Your task to perform on an android device: turn on showing notifications on the lock screen Image 0: 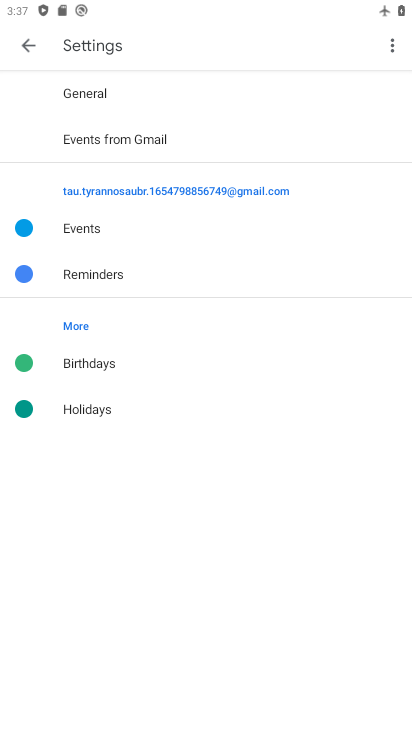
Step 0: press home button
Your task to perform on an android device: turn on showing notifications on the lock screen Image 1: 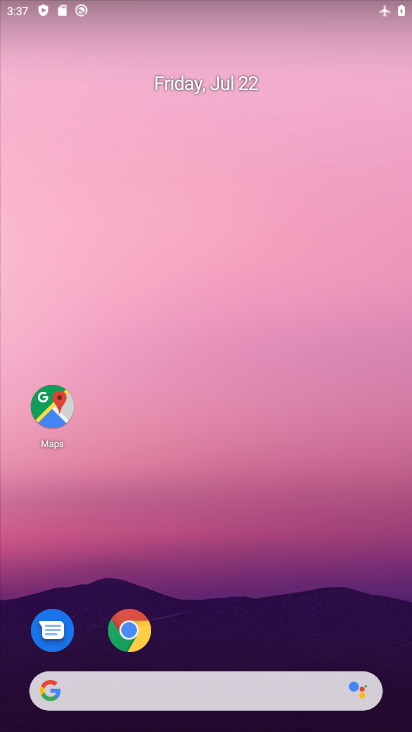
Step 1: click (211, 98)
Your task to perform on an android device: turn on showing notifications on the lock screen Image 2: 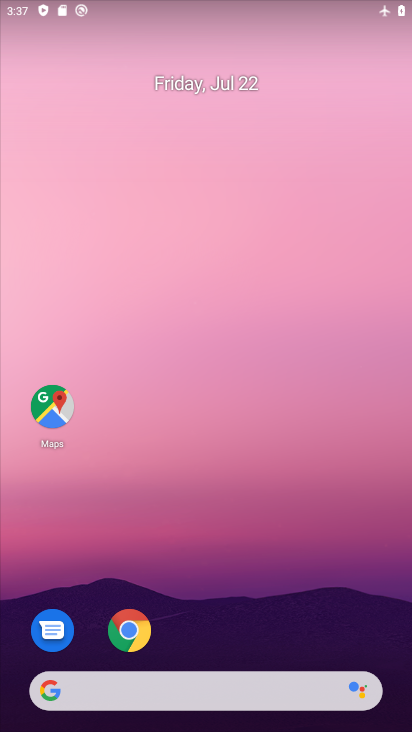
Step 2: drag from (208, 644) to (302, 13)
Your task to perform on an android device: turn on showing notifications on the lock screen Image 3: 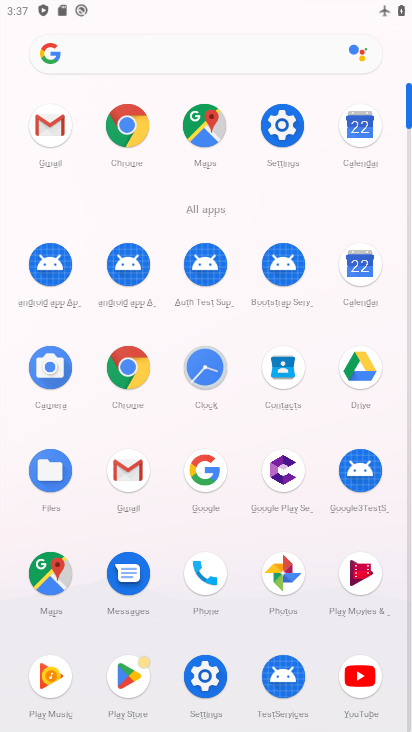
Step 3: click (219, 673)
Your task to perform on an android device: turn on showing notifications on the lock screen Image 4: 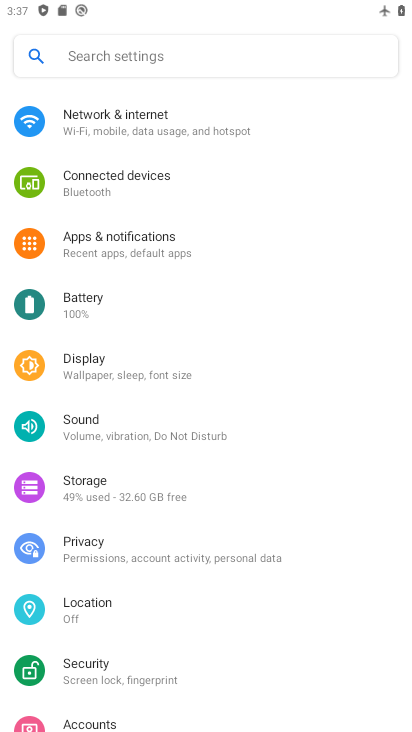
Step 4: click (152, 256)
Your task to perform on an android device: turn on showing notifications on the lock screen Image 5: 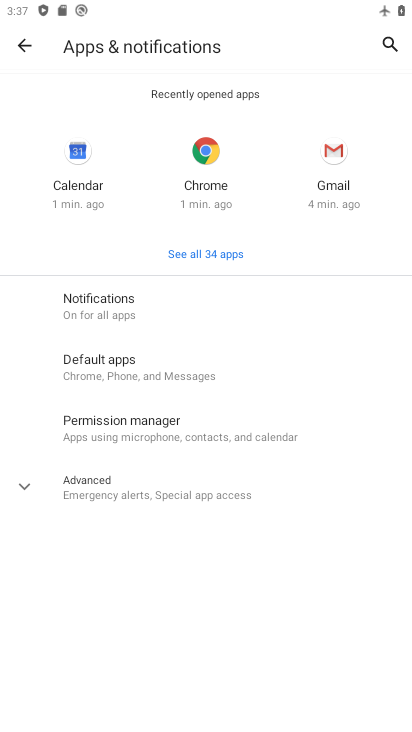
Step 5: click (126, 302)
Your task to perform on an android device: turn on showing notifications on the lock screen Image 6: 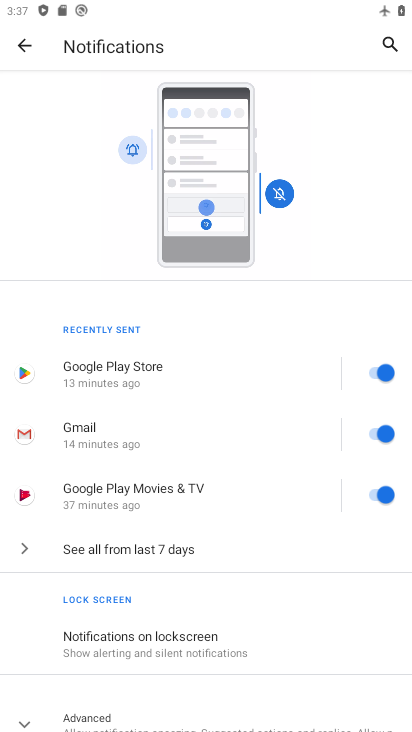
Step 6: click (137, 635)
Your task to perform on an android device: turn on showing notifications on the lock screen Image 7: 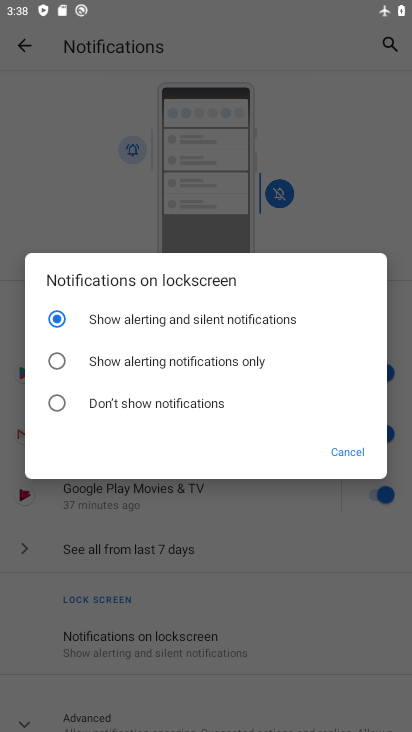
Step 7: task complete